Your task to perform on an android device: Open settings on Google Maps Image 0: 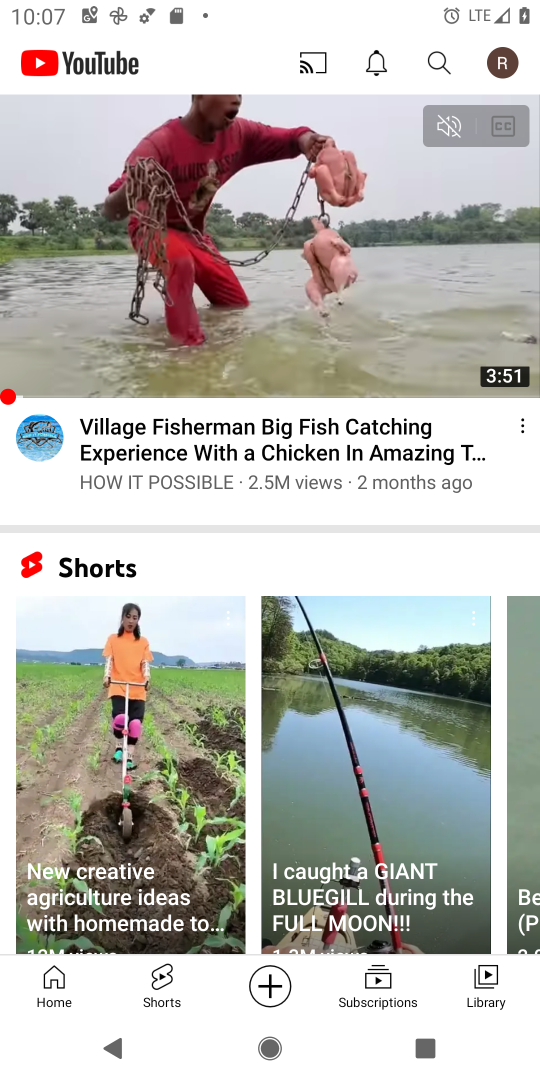
Step 0: press home button
Your task to perform on an android device: Open settings on Google Maps Image 1: 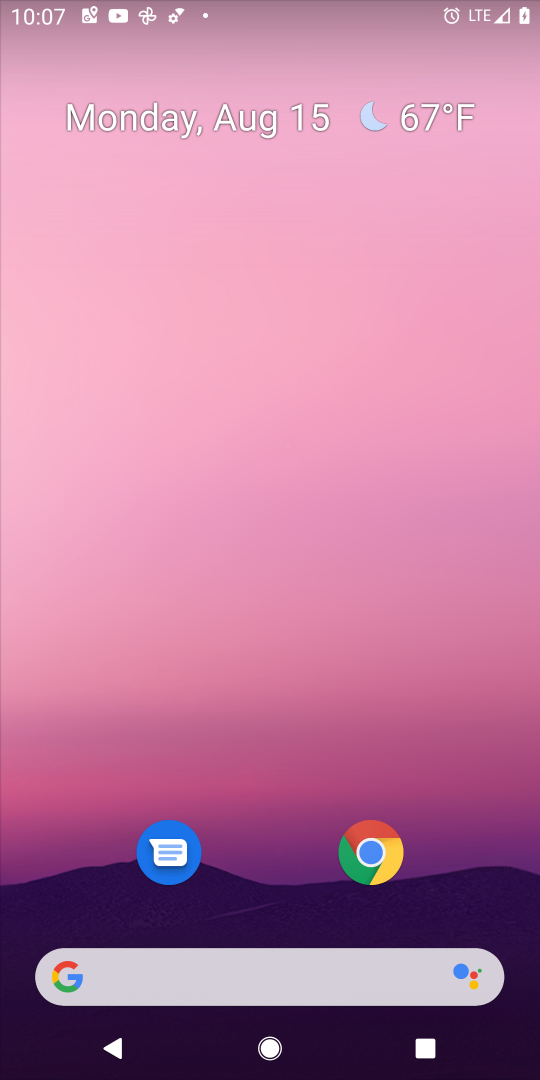
Step 1: drag from (216, 978) to (302, 338)
Your task to perform on an android device: Open settings on Google Maps Image 2: 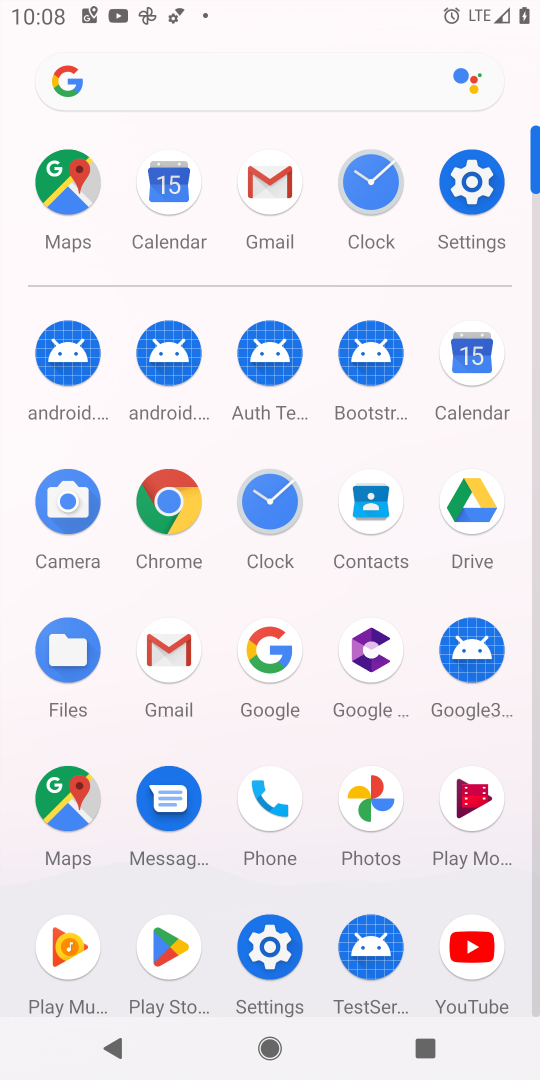
Step 2: click (63, 803)
Your task to perform on an android device: Open settings on Google Maps Image 3: 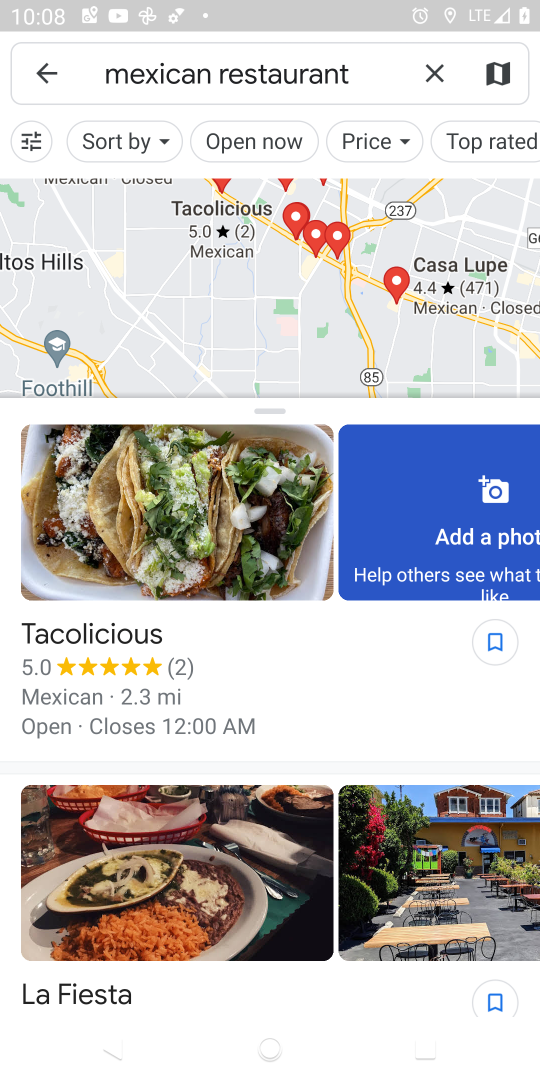
Step 3: press back button
Your task to perform on an android device: Open settings on Google Maps Image 4: 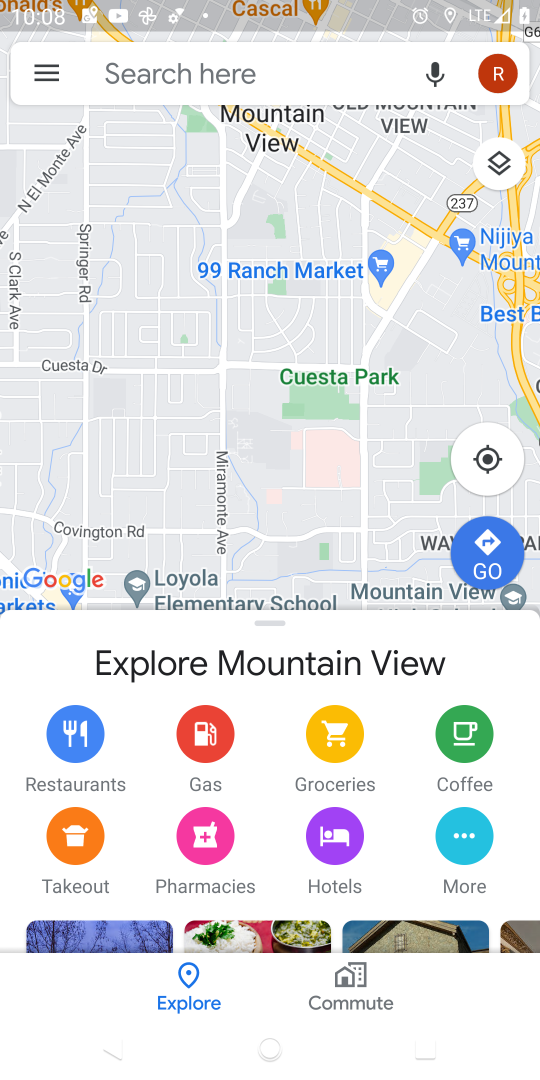
Step 4: click (48, 78)
Your task to perform on an android device: Open settings on Google Maps Image 5: 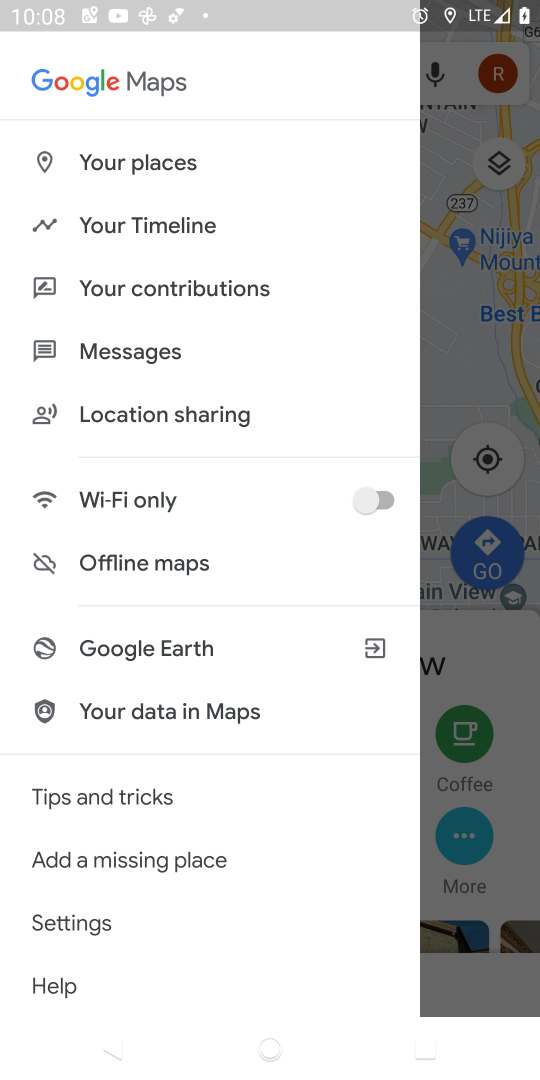
Step 5: click (85, 921)
Your task to perform on an android device: Open settings on Google Maps Image 6: 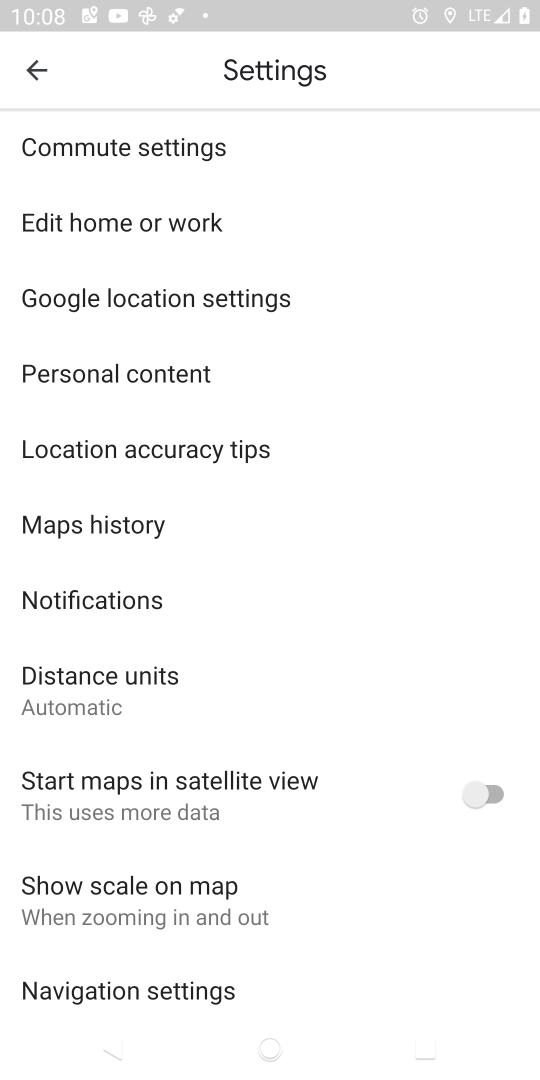
Step 6: task complete